Your task to perform on an android device: Open the web browser Image 0: 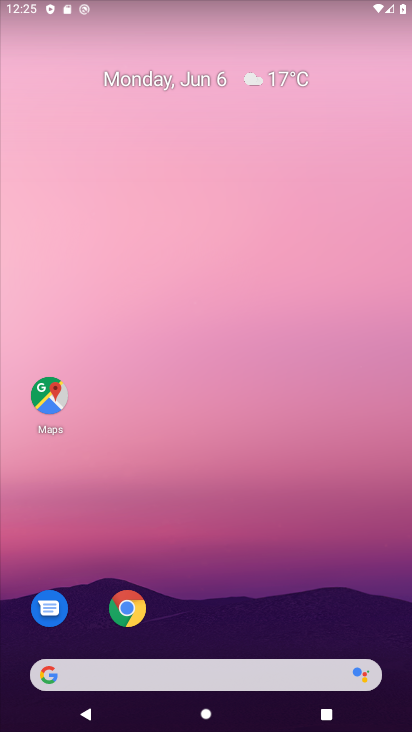
Step 0: click (125, 612)
Your task to perform on an android device: Open the web browser Image 1: 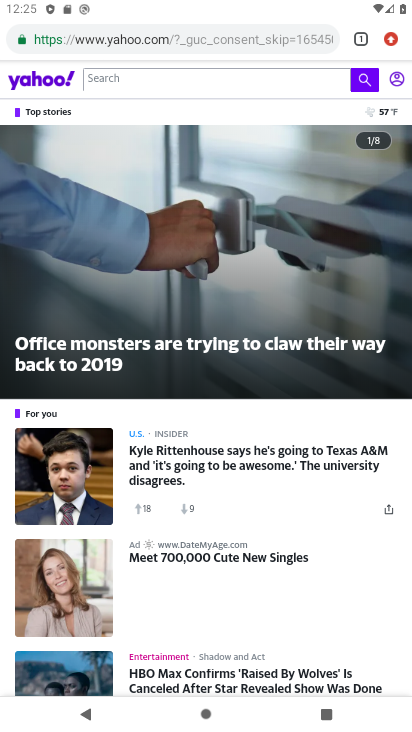
Step 1: click (360, 35)
Your task to perform on an android device: Open the web browser Image 2: 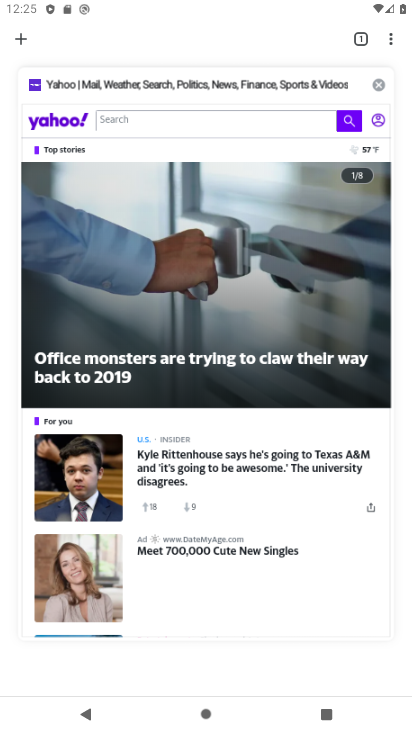
Step 2: click (375, 85)
Your task to perform on an android device: Open the web browser Image 3: 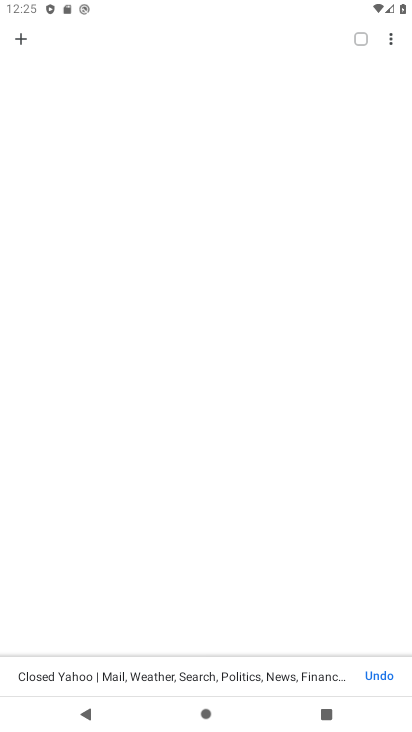
Step 3: click (15, 33)
Your task to perform on an android device: Open the web browser Image 4: 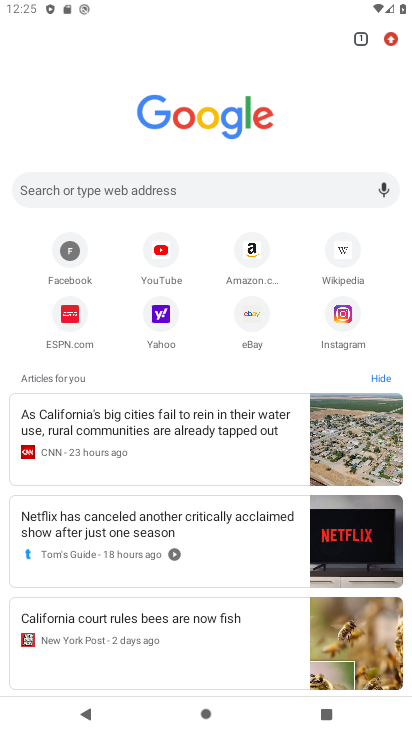
Step 4: task complete